Your task to perform on an android device: Go to Google Image 0: 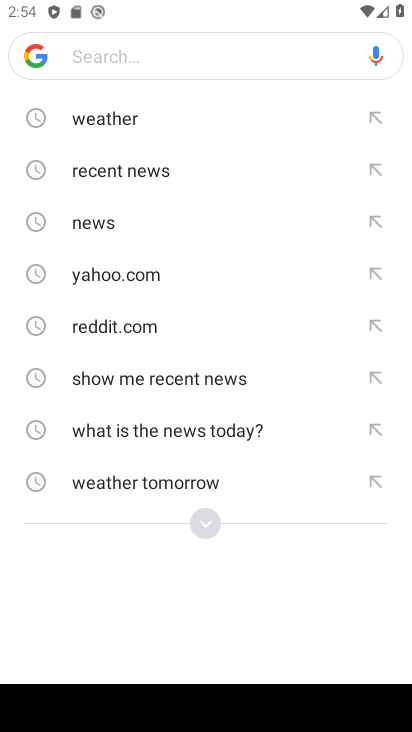
Step 0: press back button
Your task to perform on an android device: Go to Google Image 1: 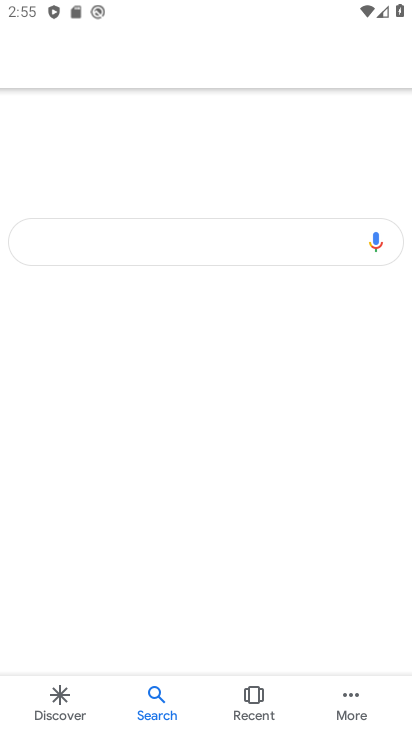
Step 1: press back button
Your task to perform on an android device: Go to Google Image 2: 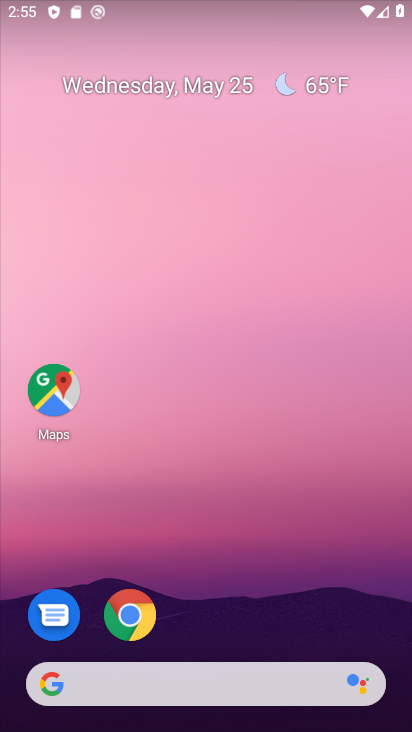
Step 2: drag from (271, 617) to (290, 6)
Your task to perform on an android device: Go to Google Image 3: 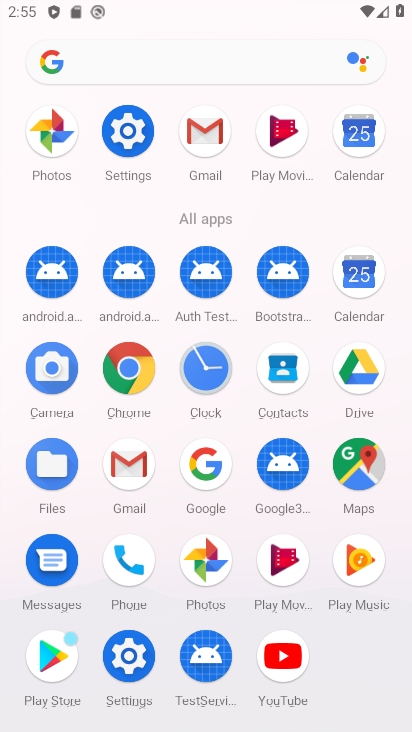
Step 3: click (213, 458)
Your task to perform on an android device: Go to Google Image 4: 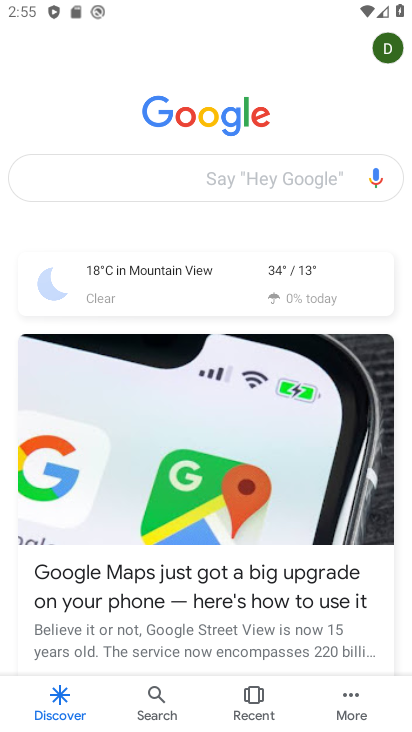
Step 4: task complete